Your task to perform on an android device: turn on bluetooth scan Image 0: 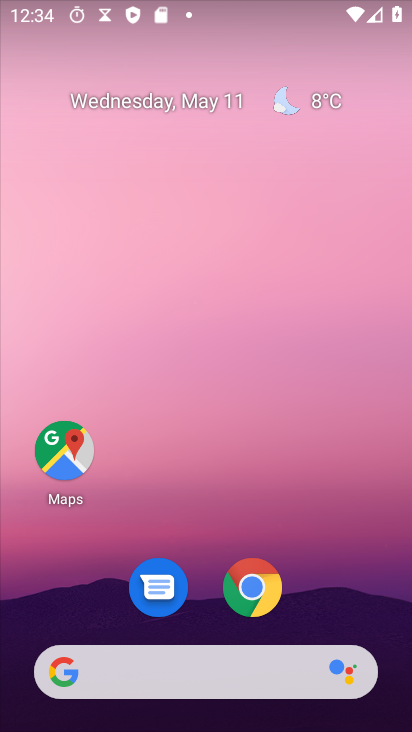
Step 0: drag from (116, 508) to (0, 202)
Your task to perform on an android device: turn on bluetooth scan Image 1: 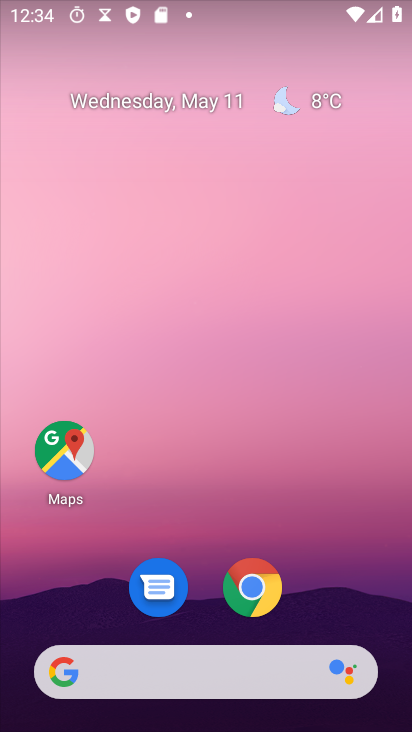
Step 1: drag from (290, 424) to (206, 105)
Your task to perform on an android device: turn on bluetooth scan Image 2: 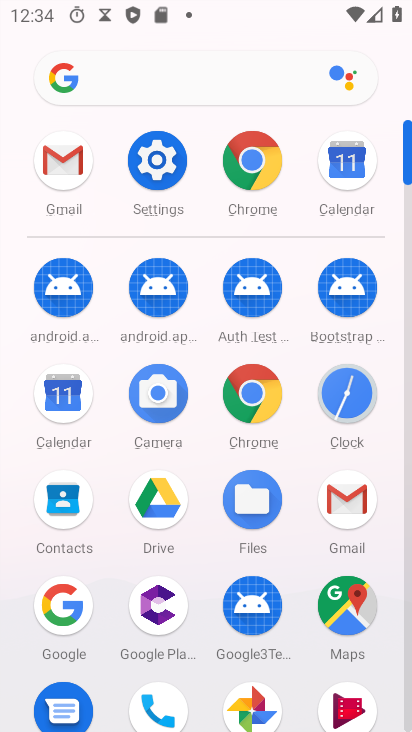
Step 2: click (156, 167)
Your task to perform on an android device: turn on bluetooth scan Image 3: 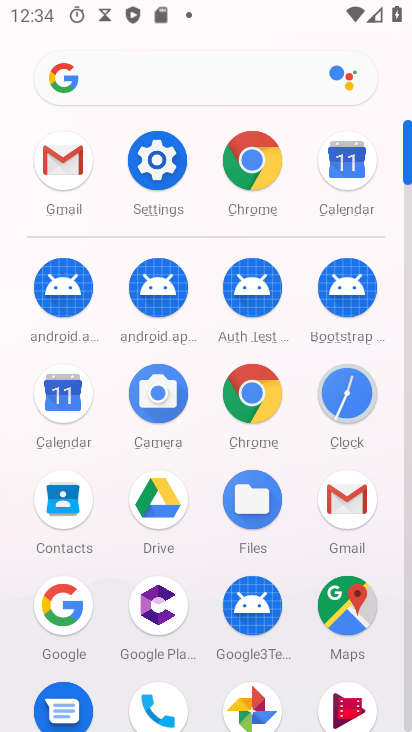
Step 3: click (156, 167)
Your task to perform on an android device: turn on bluetooth scan Image 4: 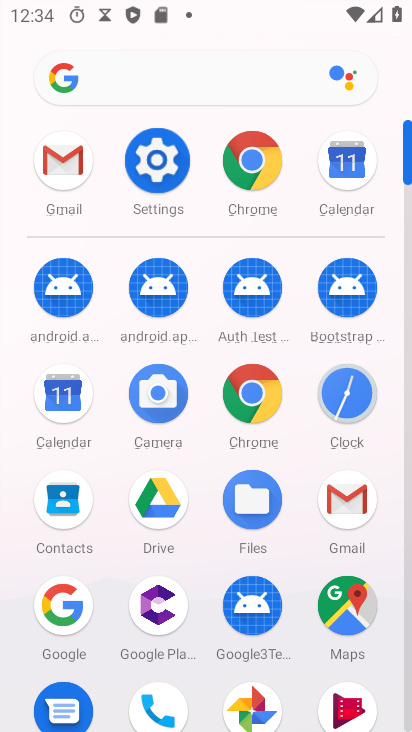
Step 4: click (157, 168)
Your task to perform on an android device: turn on bluetooth scan Image 5: 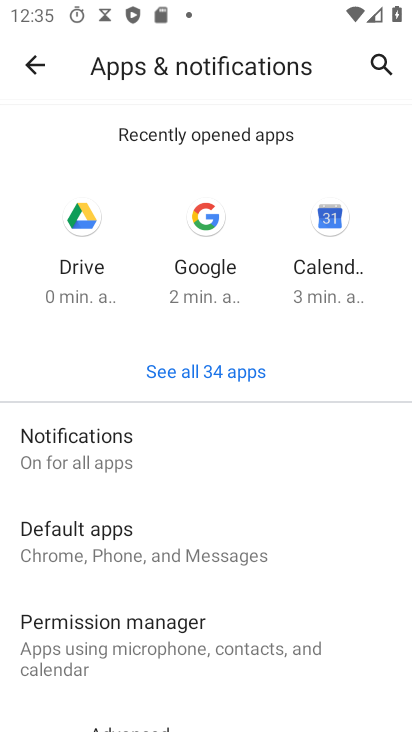
Step 5: click (30, 67)
Your task to perform on an android device: turn on bluetooth scan Image 6: 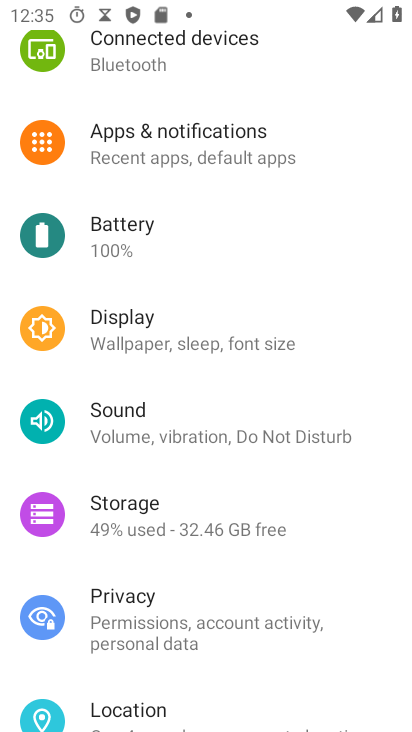
Step 6: press back button
Your task to perform on an android device: turn on bluetooth scan Image 7: 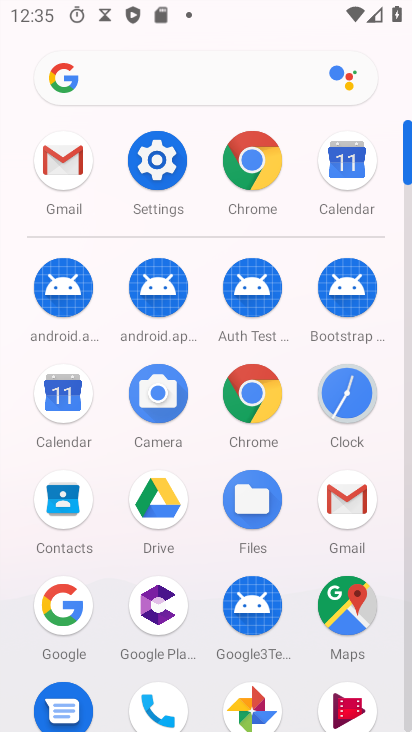
Step 7: click (160, 150)
Your task to perform on an android device: turn on bluetooth scan Image 8: 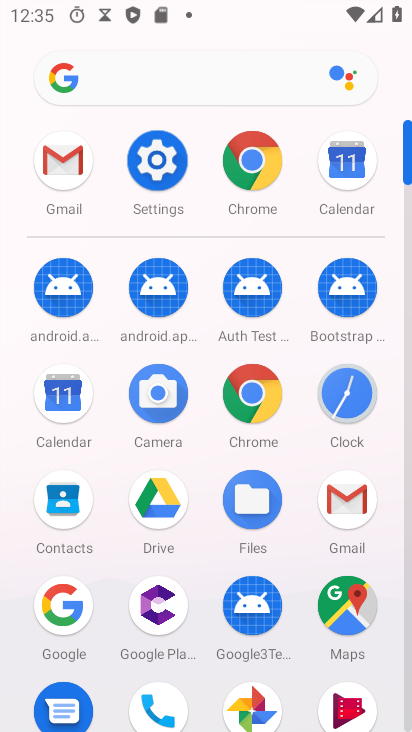
Step 8: click (160, 160)
Your task to perform on an android device: turn on bluetooth scan Image 9: 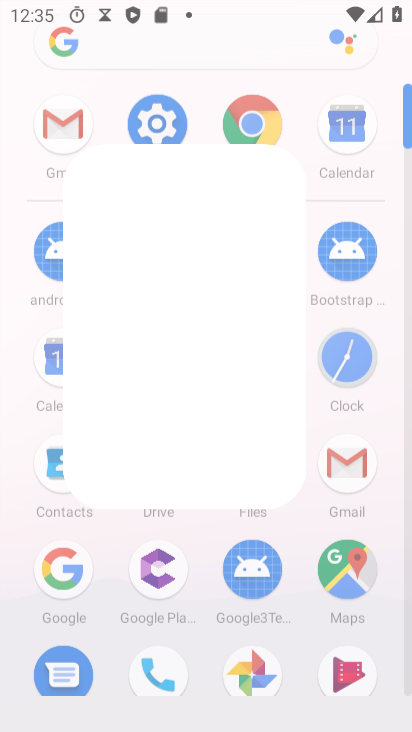
Step 9: click (160, 160)
Your task to perform on an android device: turn on bluetooth scan Image 10: 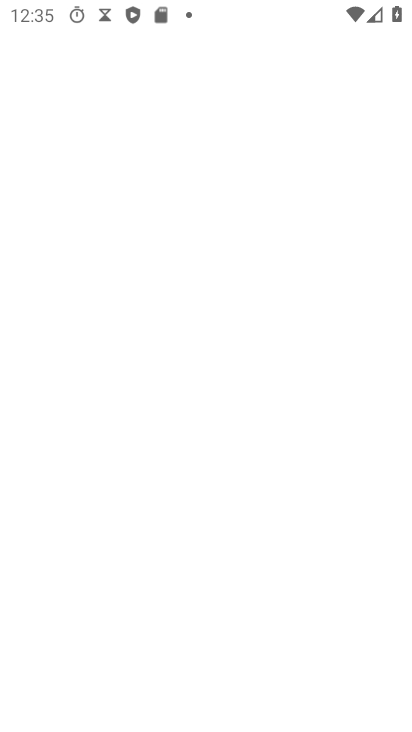
Step 10: click (161, 161)
Your task to perform on an android device: turn on bluetooth scan Image 11: 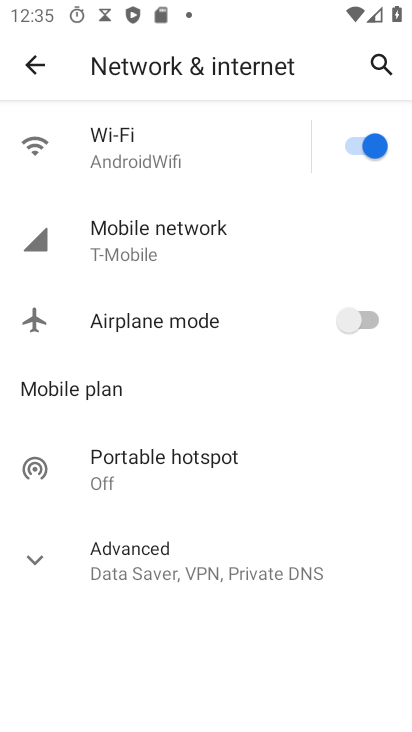
Step 11: click (31, 48)
Your task to perform on an android device: turn on bluetooth scan Image 12: 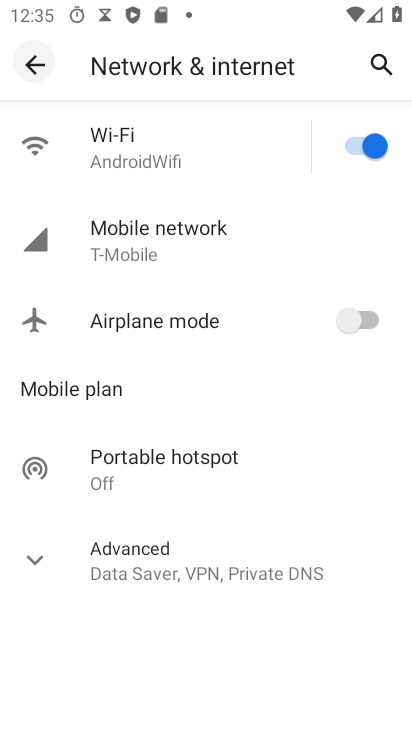
Step 12: click (31, 48)
Your task to perform on an android device: turn on bluetooth scan Image 13: 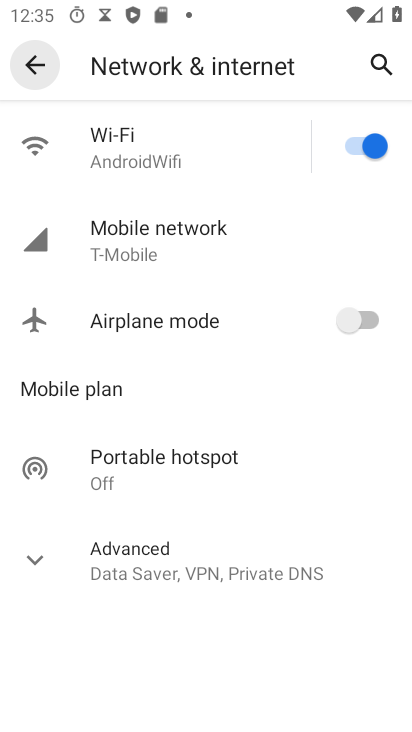
Step 13: click (31, 50)
Your task to perform on an android device: turn on bluetooth scan Image 14: 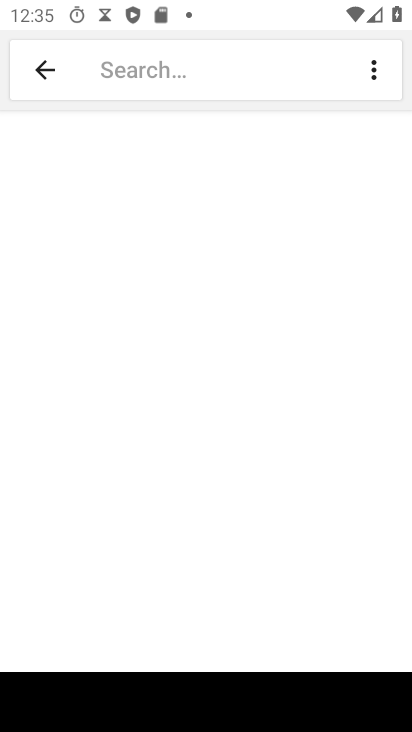
Step 14: click (40, 70)
Your task to perform on an android device: turn on bluetooth scan Image 15: 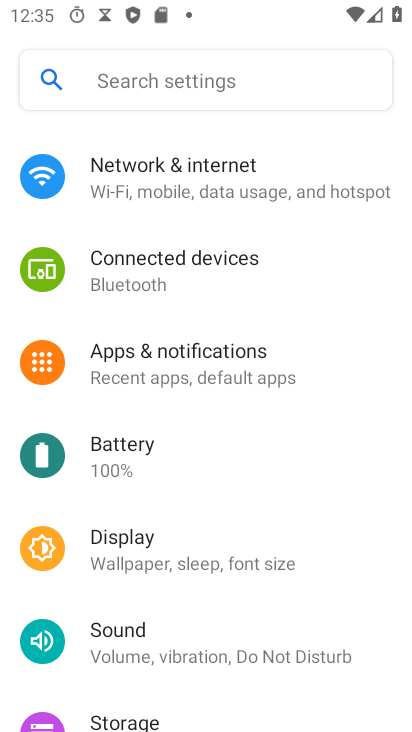
Step 15: press back button
Your task to perform on an android device: turn on bluetooth scan Image 16: 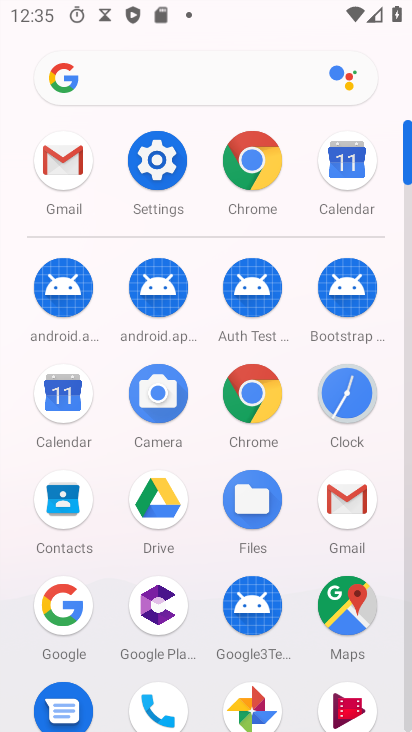
Step 16: click (155, 180)
Your task to perform on an android device: turn on bluetooth scan Image 17: 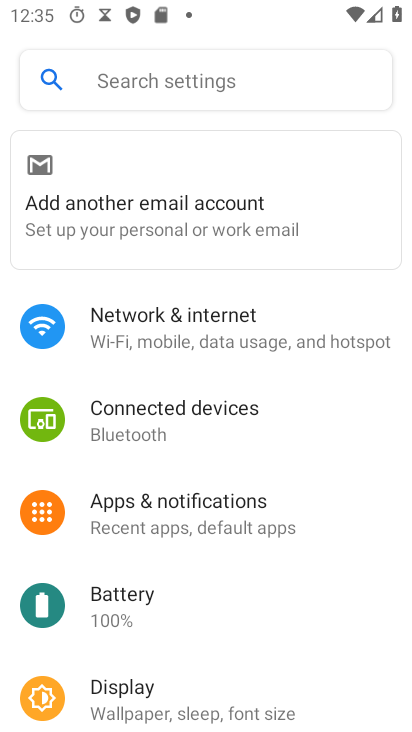
Step 17: drag from (207, 643) to (113, 173)
Your task to perform on an android device: turn on bluetooth scan Image 18: 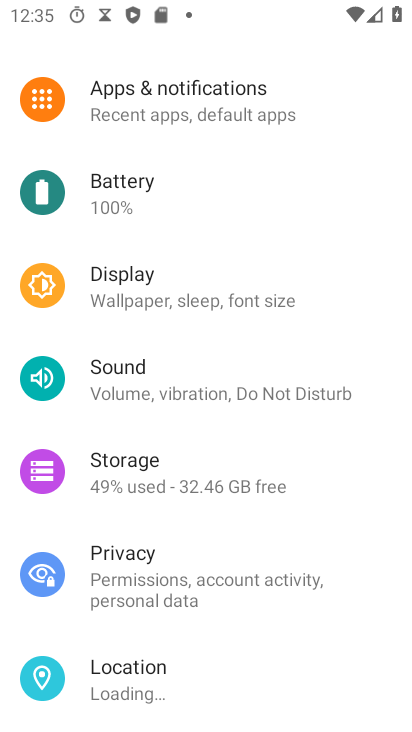
Step 18: drag from (226, 499) to (151, 90)
Your task to perform on an android device: turn on bluetooth scan Image 19: 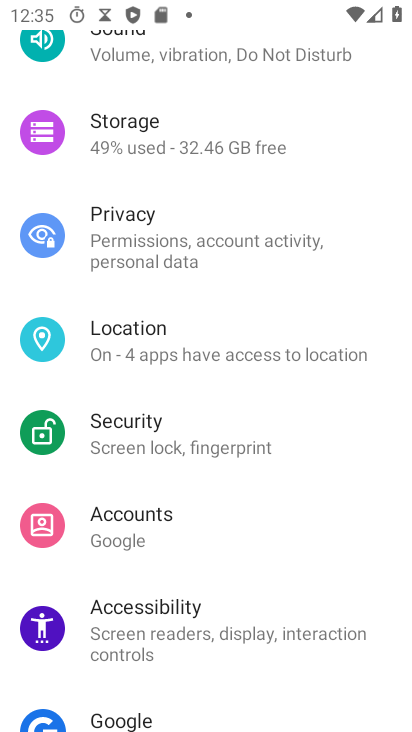
Step 19: click (138, 350)
Your task to perform on an android device: turn on bluetooth scan Image 20: 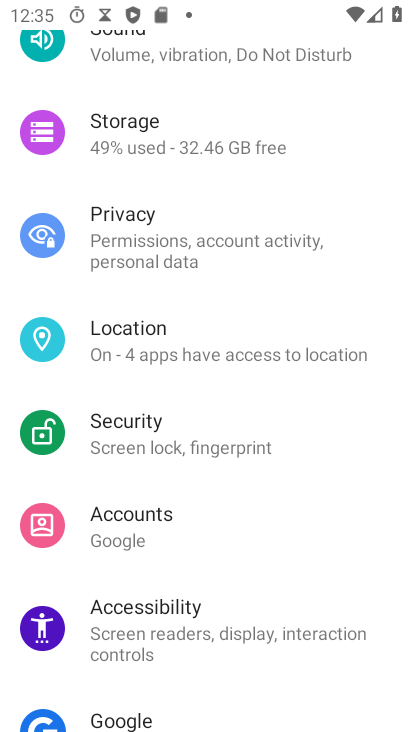
Step 20: click (137, 349)
Your task to perform on an android device: turn on bluetooth scan Image 21: 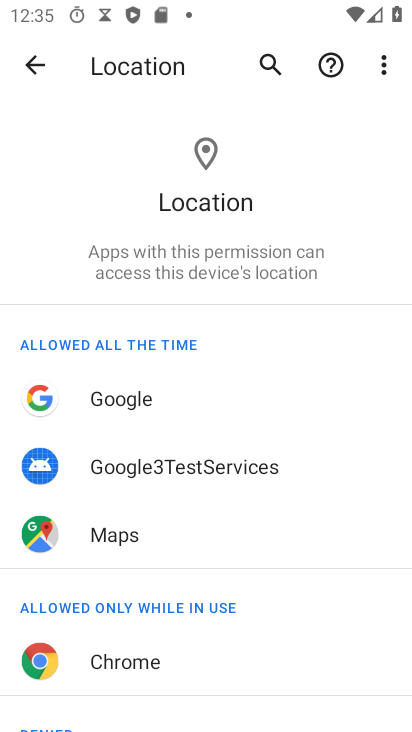
Step 21: click (34, 65)
Your task to perform on an android device: turn on bluetooth scan Image 22: 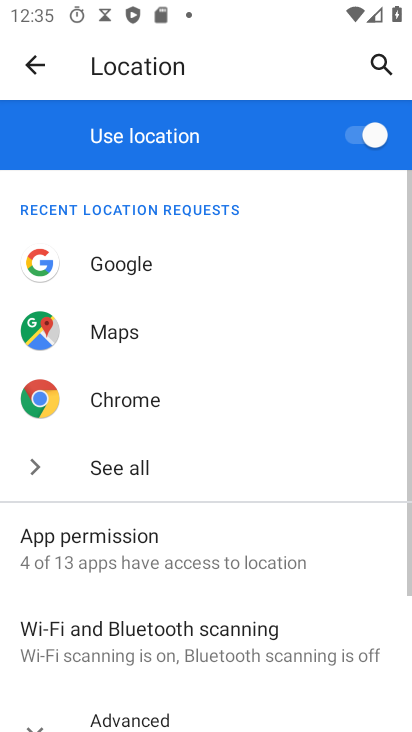
Step 22: drag from (153, 585) to (156, 248)
Your task to perform on an android device: turn on bluetooth scan Image 23: 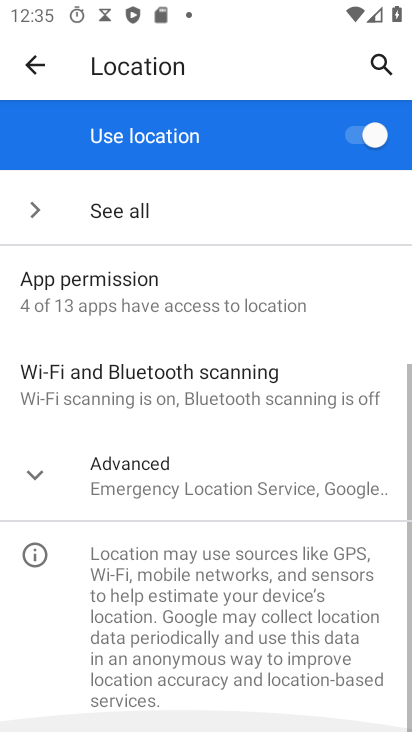
Step 23: drag from (202, 547) to (143, 159)
Your task to perform on an android device: turn on bluetooth scan Image 24: 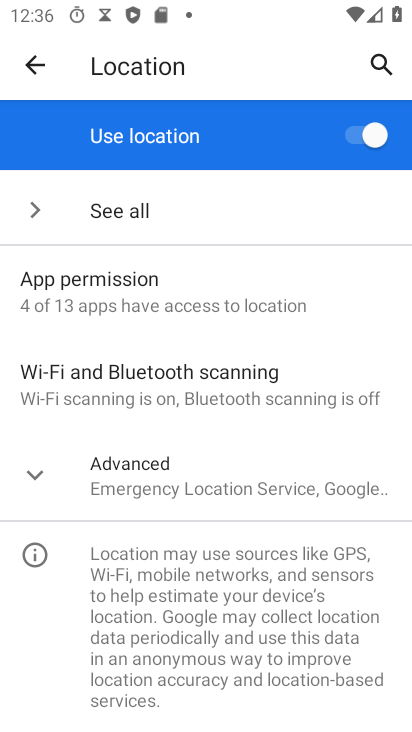
Step 24: click (165, 393)
Your task to perform on an android device: turn on bluetooth scan Image 25: 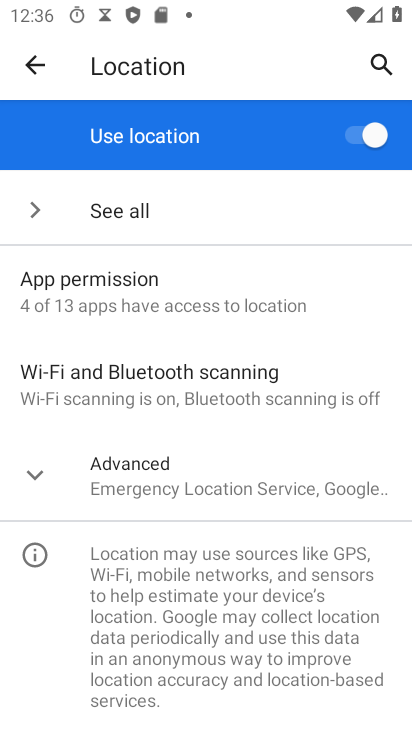
Step 25: click (165, 393)
Your task to perform on an android device: turn on bluetooth scan Image 26: 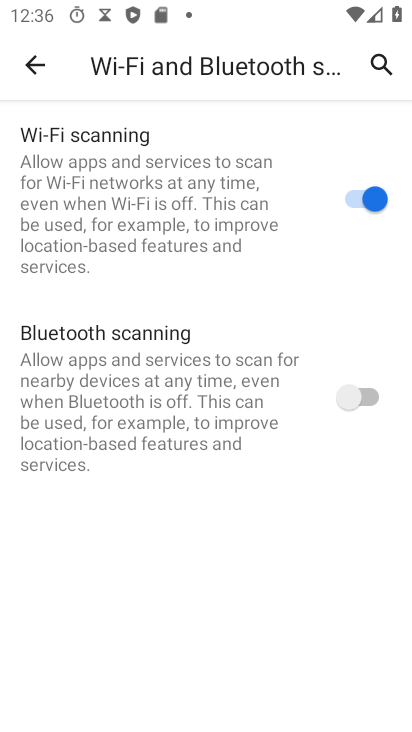
Step 26: click (346, 395)
Your task to perform on an android device: turn on bluetooth scan Image 27: 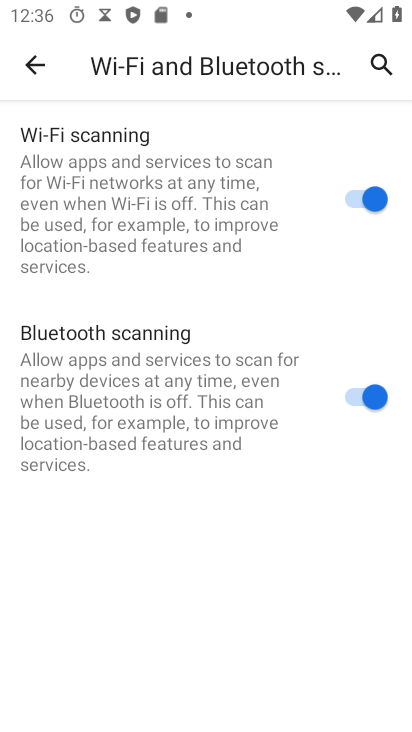
Step 27: task complete